Your task to perform on an android device: Go to CNN.com Image 0: 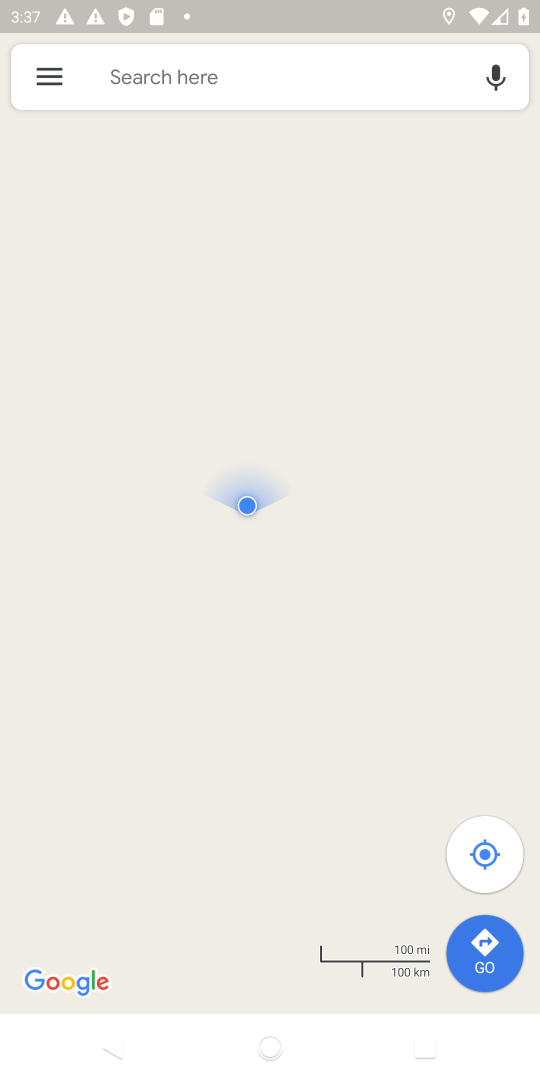
Step 0: press home button
Your task to perform on an android device: Go to CNN.com Image 1: 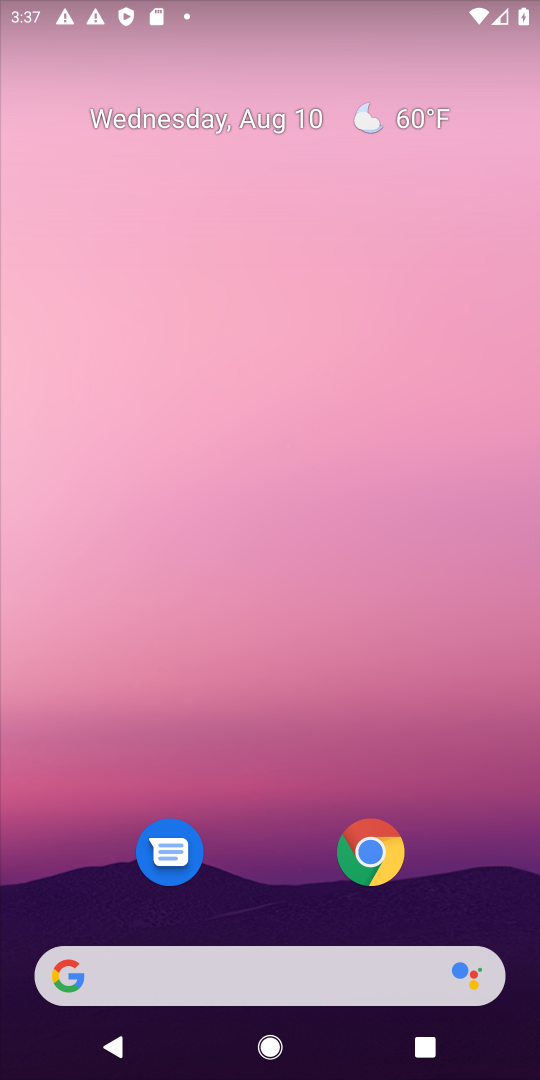
Step 1: drag from (255, 827) to (272, 231)
Your task to perform on an android device: Go to CNN.com Image 2: 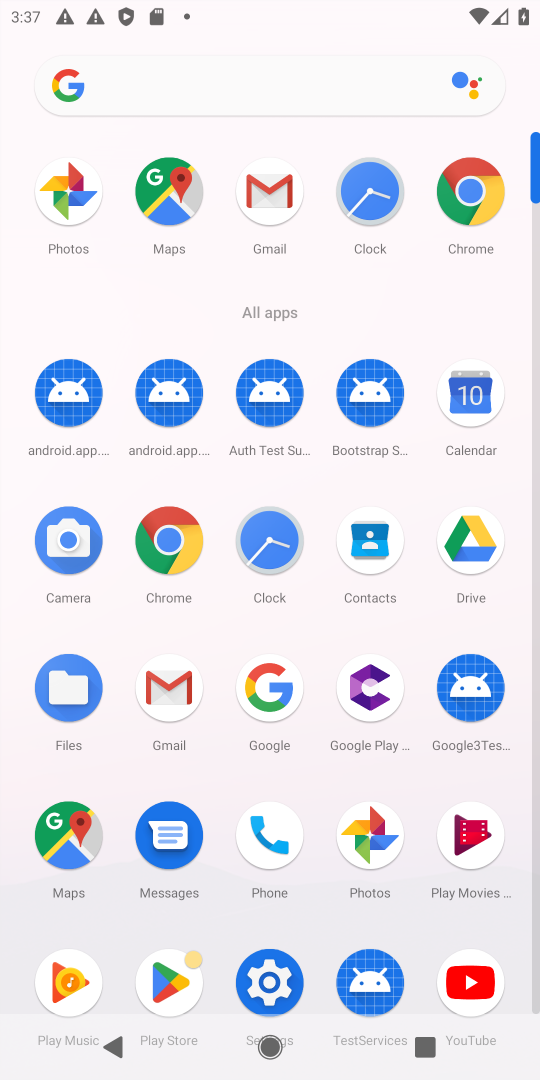
Step 2: click (169, 537)
Your task to perform on an android device: Go to CNN.com Image 3: 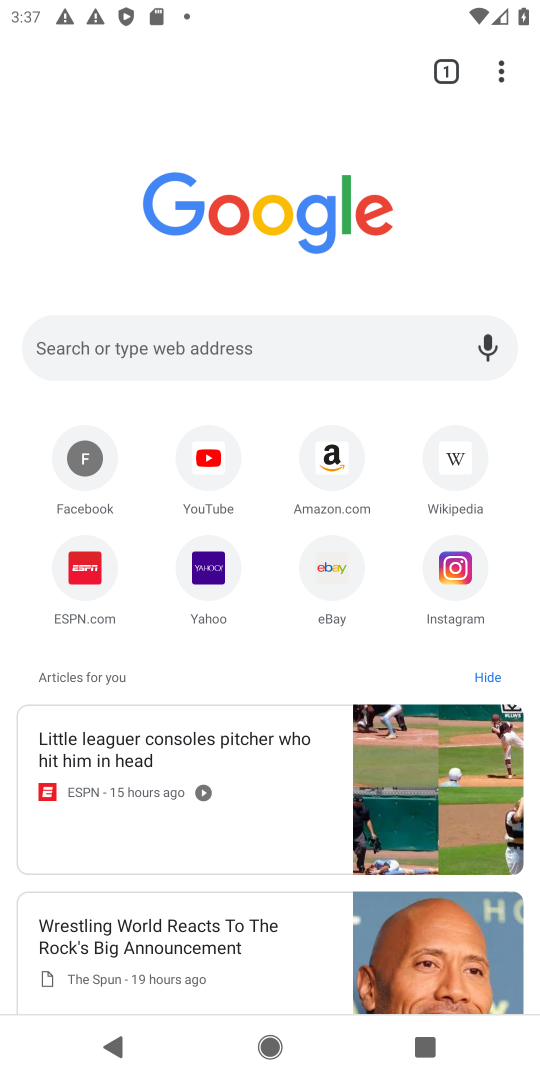
Step 3: click (234, 344)
Your task to perform on an android device: Go to CNN.com Image 4: 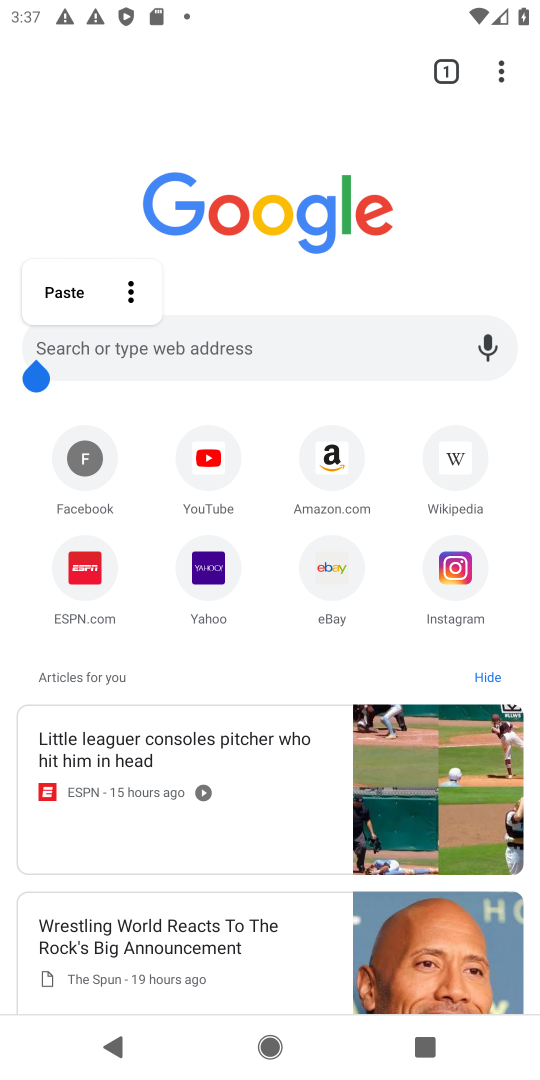
Step 4: click (353, 358)
Your task to perform on an android device: Go to CNN.com Image 5: 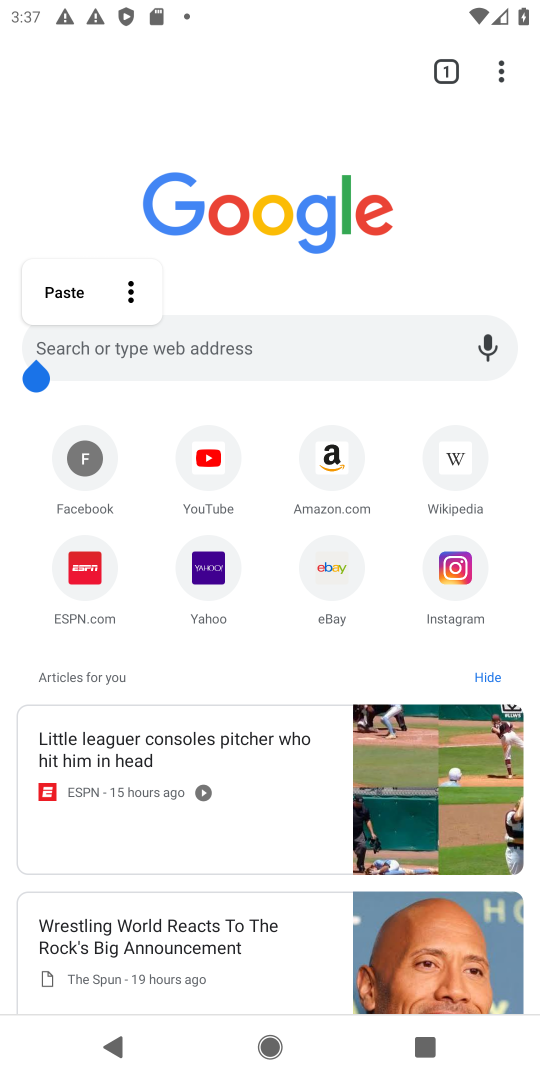
Step 5: type "cnn.com"
Your task to perform on an android device: Go to CNN.com Image 6: 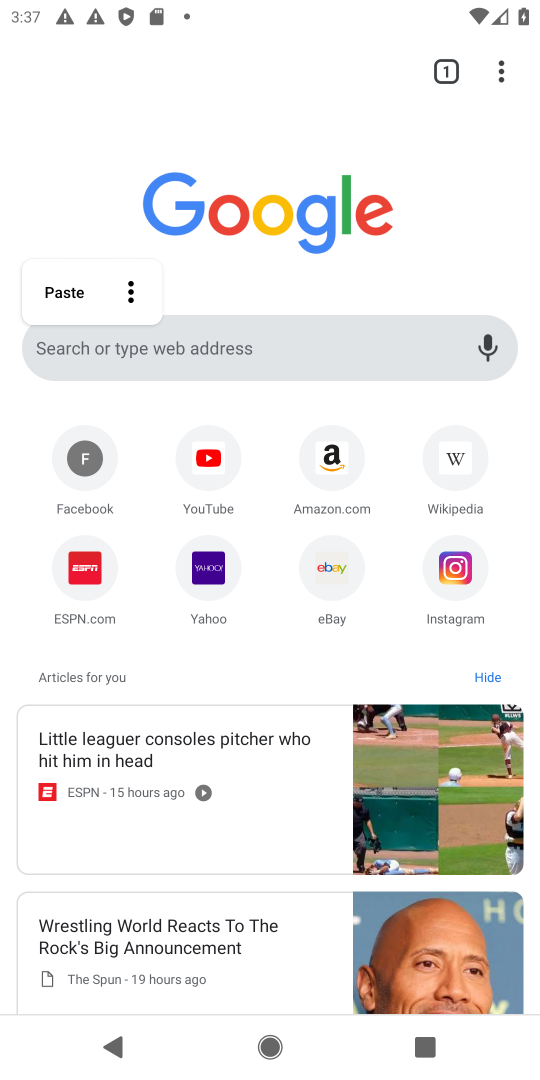
Step 6: click (345, 342)
Your task to perform on an android device: Go to CNN.com Image 7: 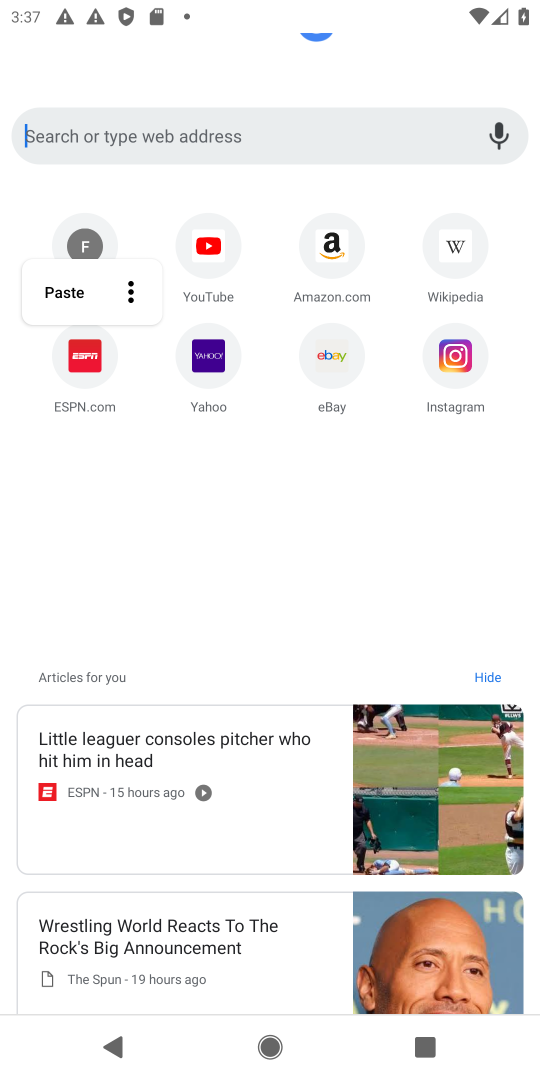
Step 7: click (340, 342)
Your task to perform on an android device: Go to CNN.com Image 8: 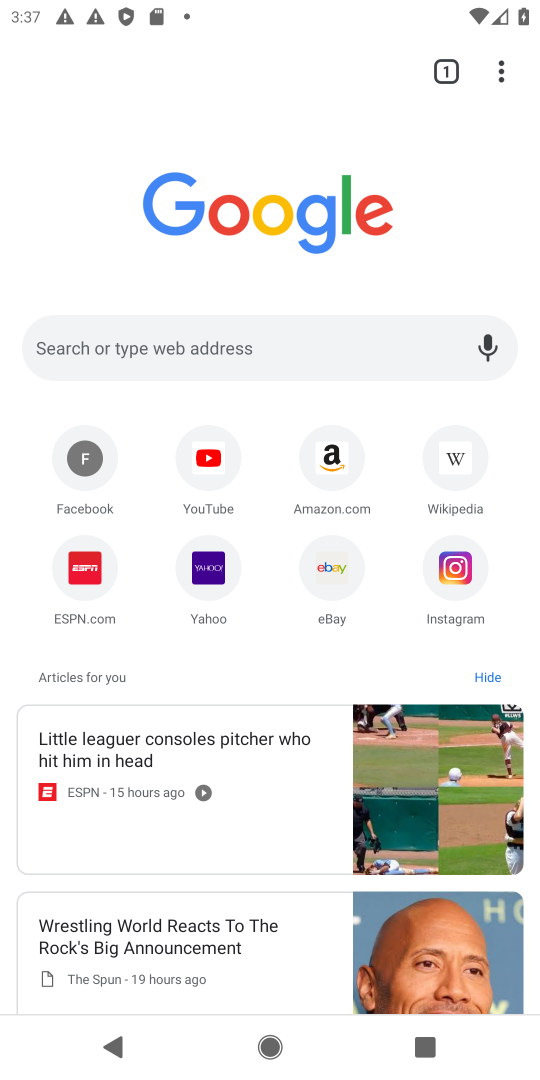
Step 8: click (174, 323)
Your task to perform on an android device: Go to CNN.com Image 9: 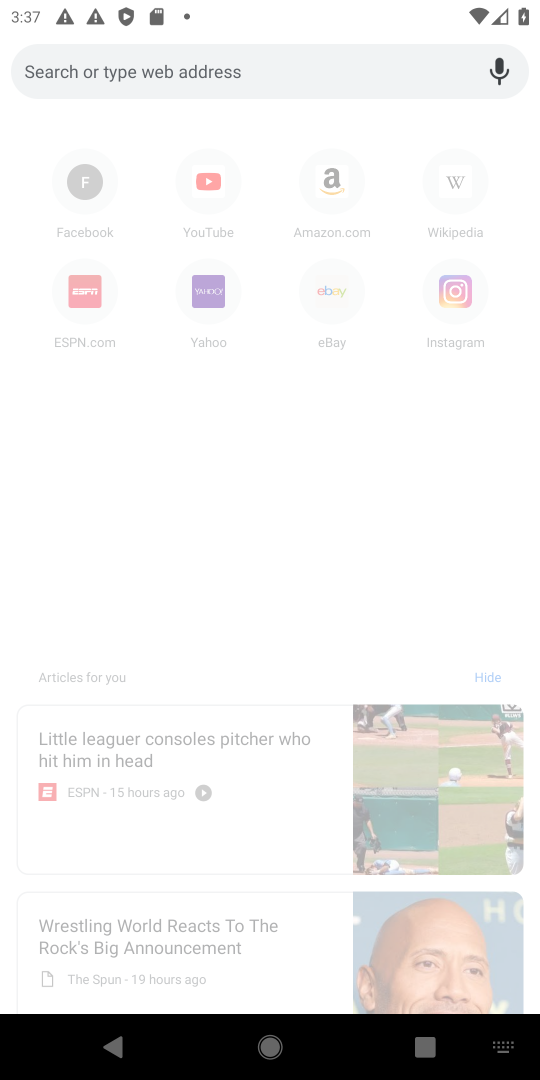
Step 9: type "cnn.com"
Your task to perform on an android device: Go to CNN.com Image 10: 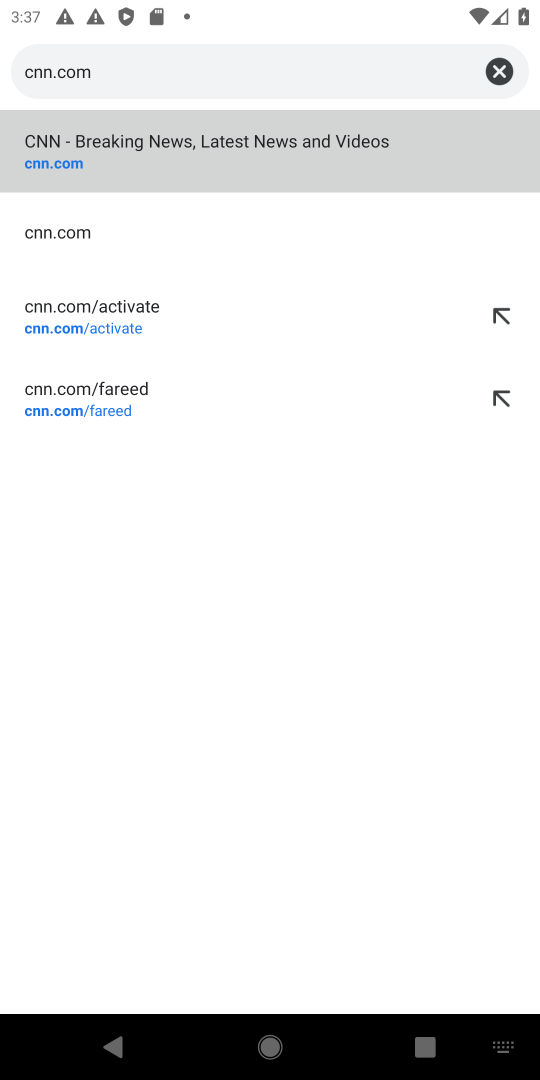
Step 10: click (175, 135)
Your task to perform on an android device: Go to CNN.com Image 11: 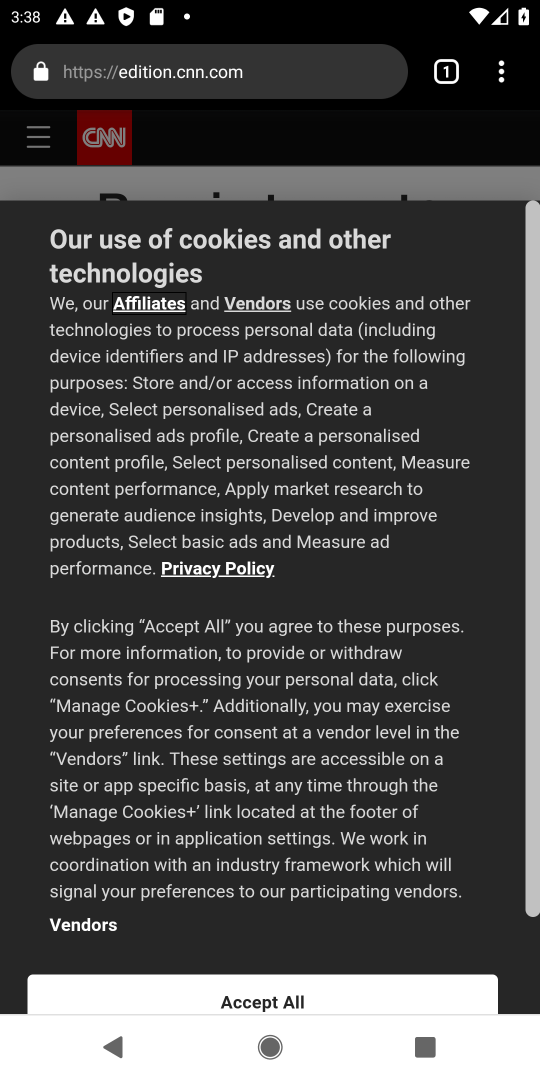
Step 11: task complete